Your task to perform on an android device: open app "Move to iOS" (install if not already installed) Image 0: 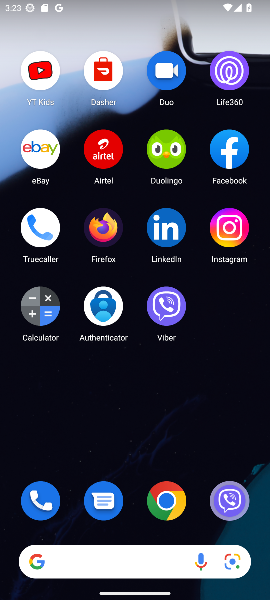
Step 0: drag from (125, 380) to (129, 50)
Your task to perform on an android device: open app "Move to iOS" (install if not already installed) Image 1: 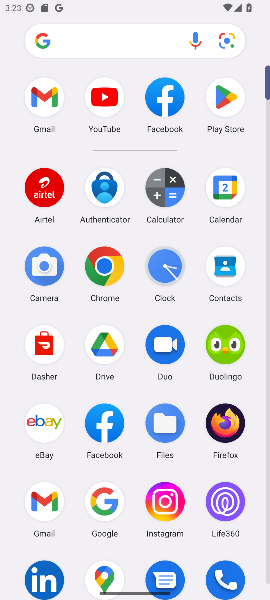
Step 1: click (225, 101)
Your task to perform on an android device: open app "Move to iOS" (install if not already installed) Image 2: 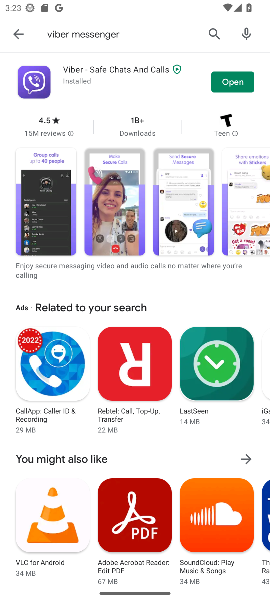
Step 2: click (209, 31)
Your task to perform on an android device: open app "Move to iOS" (install if not already installed) Image 3: 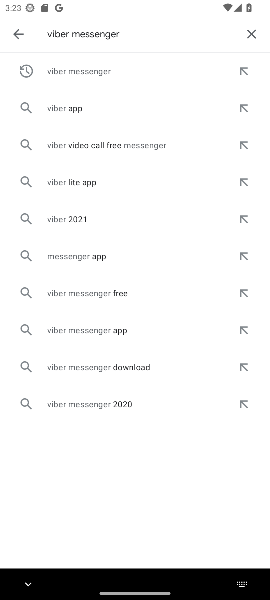
Step 3: click (251, 35)
Your task to perform on an android device: open app "Move to iOS" (install if not already installed) Image 4: 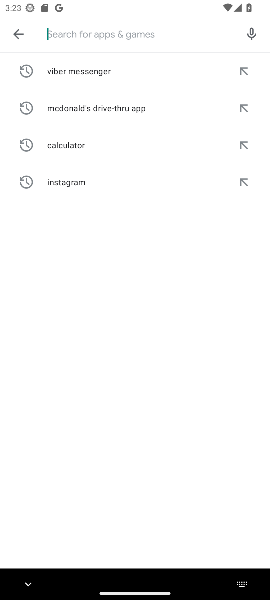
Step 4: type "Move to iOS"
Your task to perform on an android device: open app "Move to iOS" (install if not already installed) Image 5: 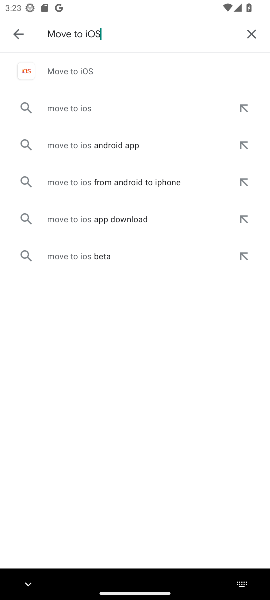
Step 5: click (71, 72)
Your task to perform on an android device: open app "Move to iOS" (install if not already installed) Image 6: 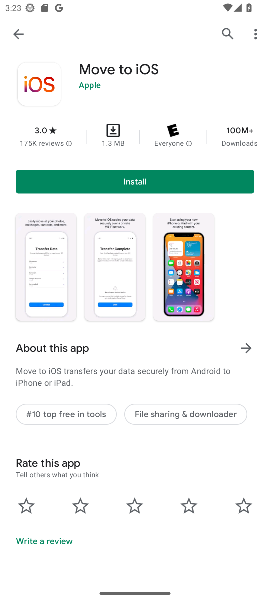
Step 6: click (112, 191)
Your task to perform on an android device: open app "Move to iOS" (install if not already installed) Image 7: 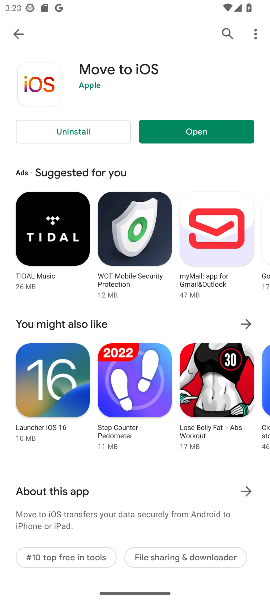
Step 7: click (172, 136)
Your task to perform on an android device: open app "Move to iOS" (install if not already installed) Image 8: 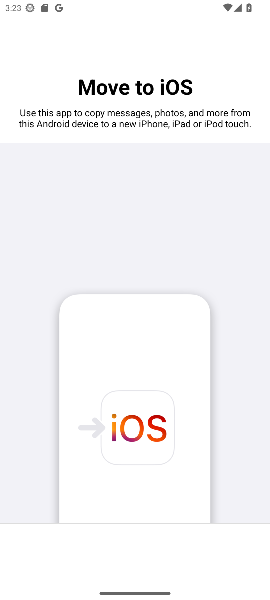
Step 8: task complete